Your task to perform on an android device: What's the weather going to be this weekend? Image 0: 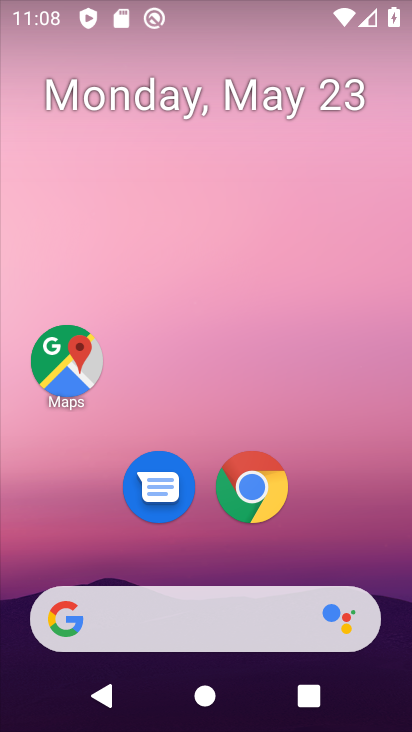
Step 0: drag from (0, 253) to (379, 181)
Your task to perform on an android device: What's the weather going to be this weekend? Image 1: 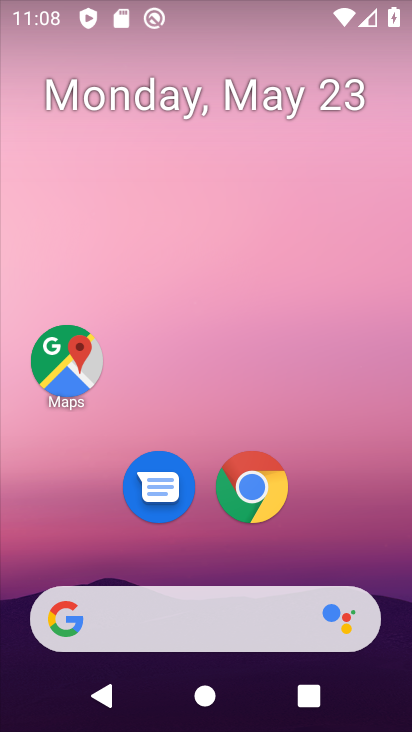
Step 1: drag from (3, 262) to (406, 238)
Your task to perform on an android device: What's the weather going to be this weekend? Image 2: 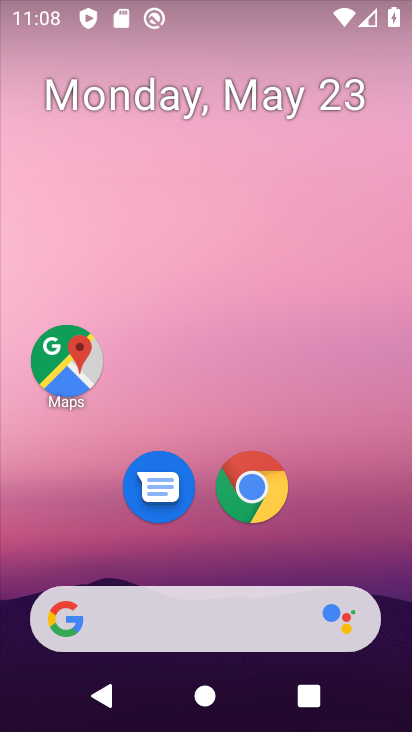
Step 2: drag from (2, 270) to (408, 208)
Your task to perform on an android device: What's the weather going to be this weekend? Image 3: 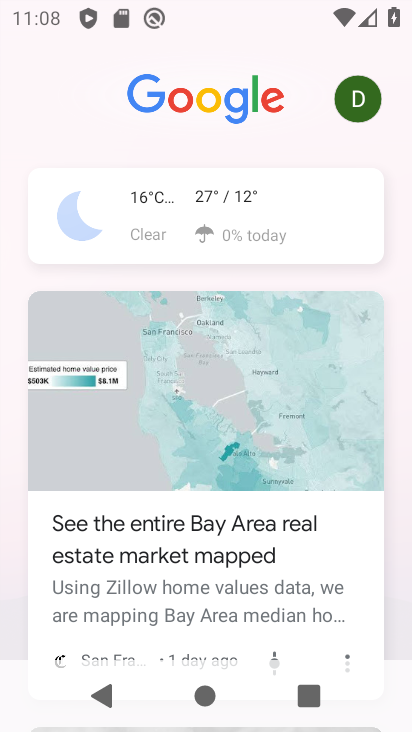
Step 3: click (241, 221)
Your task to perform on an android device: What's the weather going to be this weekend? Image 4: 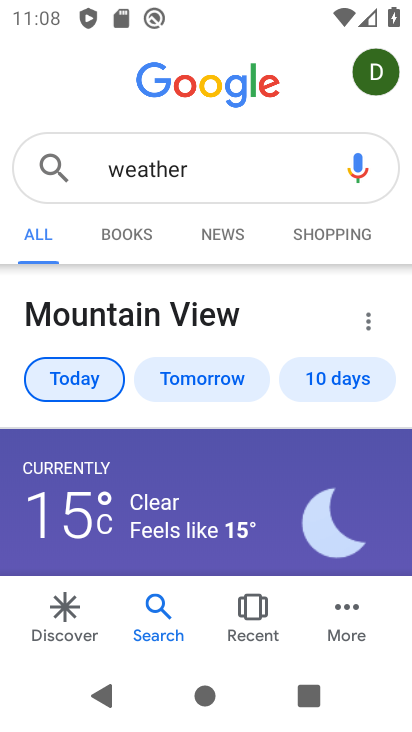
Step 4: drag from (249, 560) to (317, 256)
Your task to perform on an android device: What's the weather going to be this weekend? Image 5: 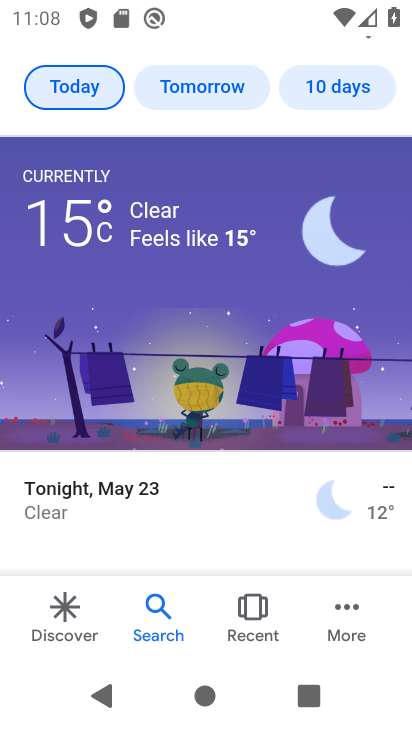
Step 5: click (347, 101)
Your task to perform on an android device: What's the weather going to be this weekend? Image 6: 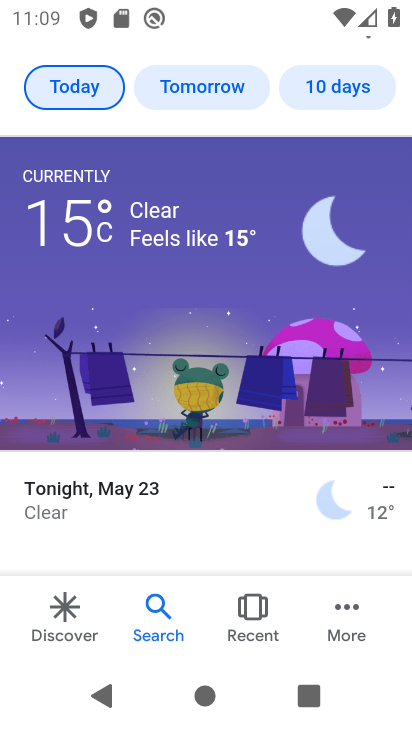
Step 6: click (361, 90)
Your task to perform on an android device: What's the weather going to be this weekend? Image 7: 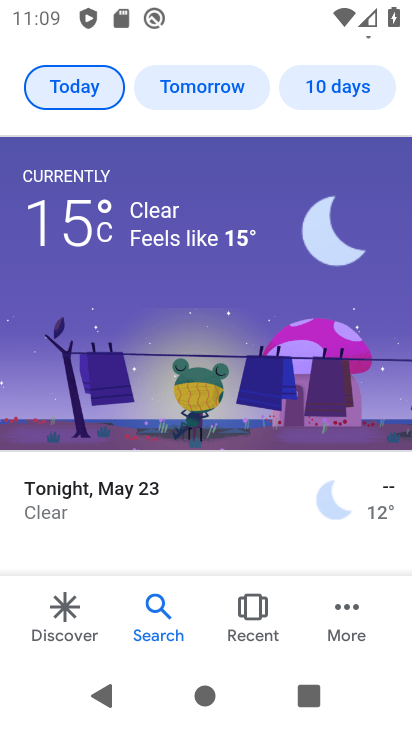
Step 7: click (219, 351)
Your task to perform on an android device: What's the weather going to be this weekend? Image 8: 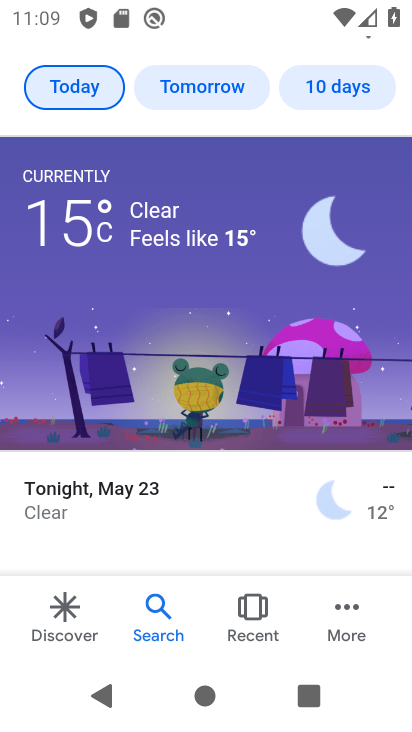
Step 8: drag from (246, 562) to (320, 116)
Your task to perform on an android device: What's the weather going to be this weekend? Image 9: 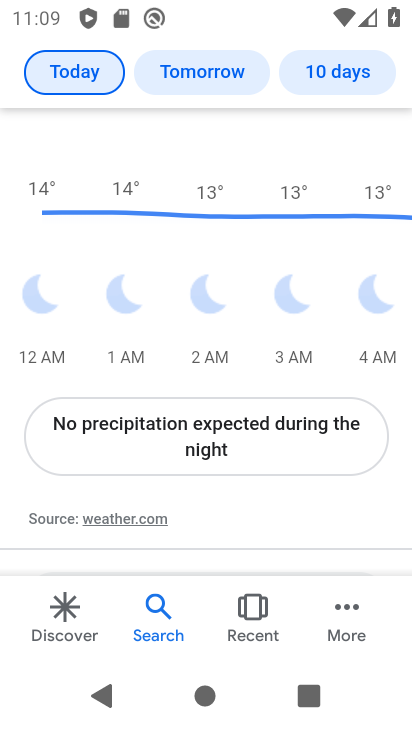
Step 9: drag from (246, 509) to (332, 87)
Your task to perform on an android device: What's the weather going to be this weekend? Image 10: 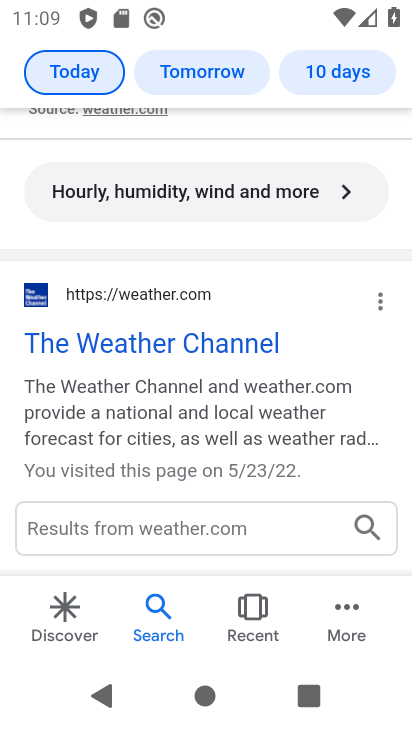
Step 10: click (203, 342)
Your task to perform on an android device: What's the weather going to be this weekend? Image 11: 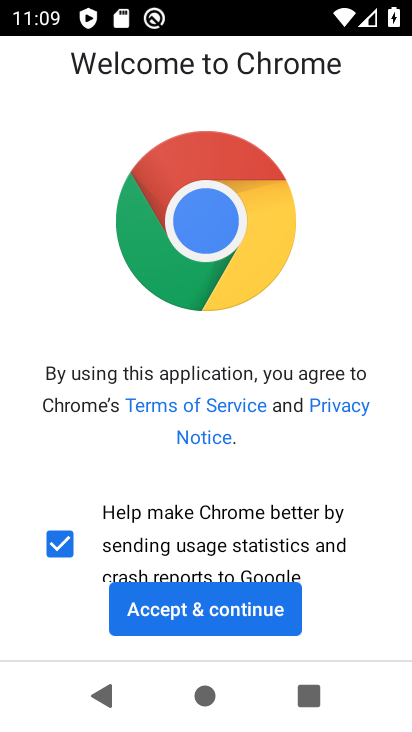
Step 11: click (217, 613)
Your task to perform on an android device: What's the weather going to be this weekend? Image 12: 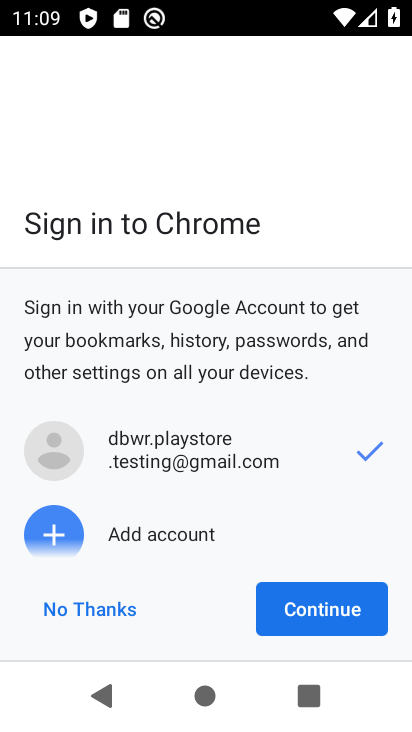
Step 12: click (342, 615)
Your task to perform on an android device: What's the weather going to be this weekend? Image 13: 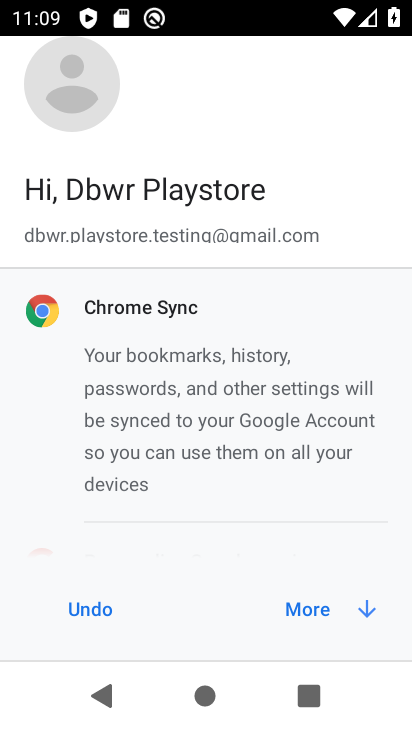
Step 13: click (342, 615)
Your task to perform on an android device: What's the weather going to be this weekend? Image 14: 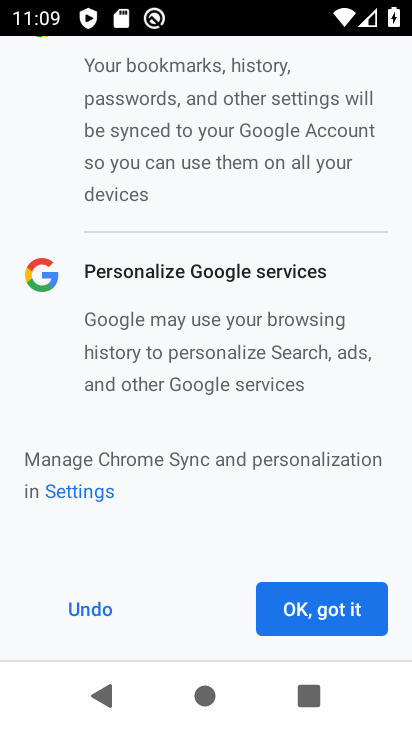
Step 14: click (340, 613)
Your task to perform on an android device: What's the weather going to be this weekend? Image 15: 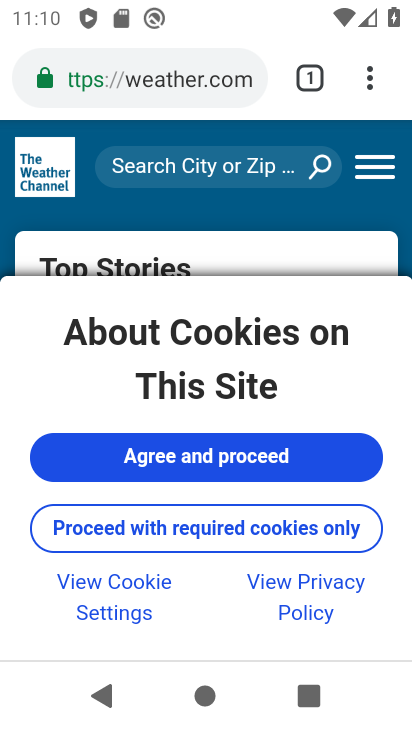
Step 15: click (244, 443)
Your task to perform on an android device: What's the weather going to be this weekend? Image 16: 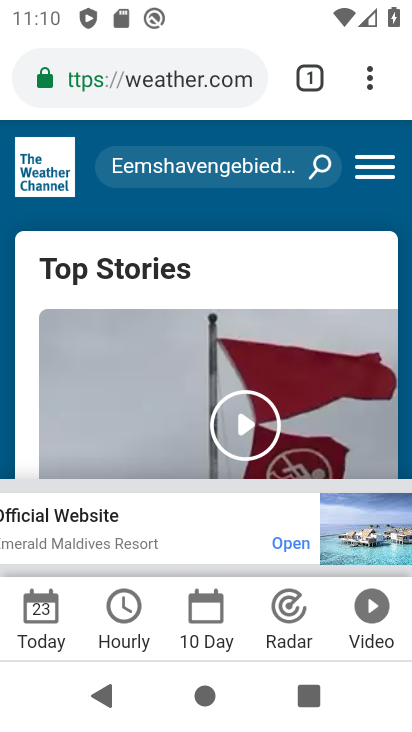
Step 16: click (214, 594)
Your task to perform on an android device: What's the weather going to be this weekend? Image 17: 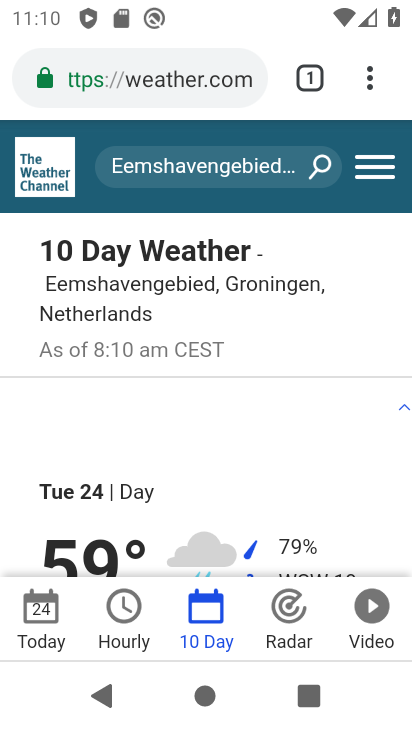
Step 17: drag from (143, 545) to (274, 165)
Your task to perform on an android device: What's the weather going to be this weekend? Image 18: 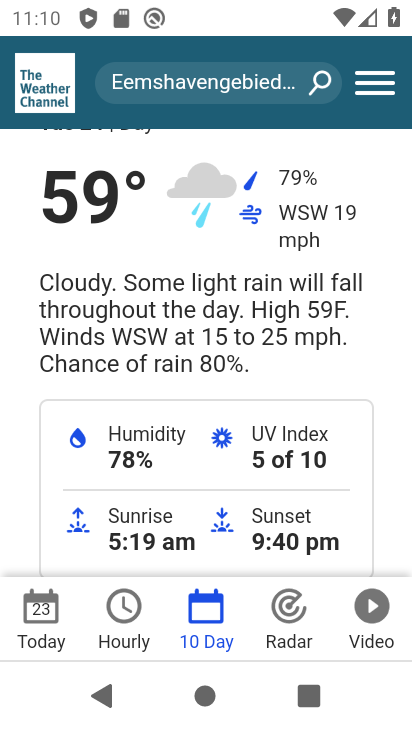
Step 18: drag from (217, 484) to (331, 145)
Your task to perform on an android device: What's the weather going to be this weekend? Image 19: 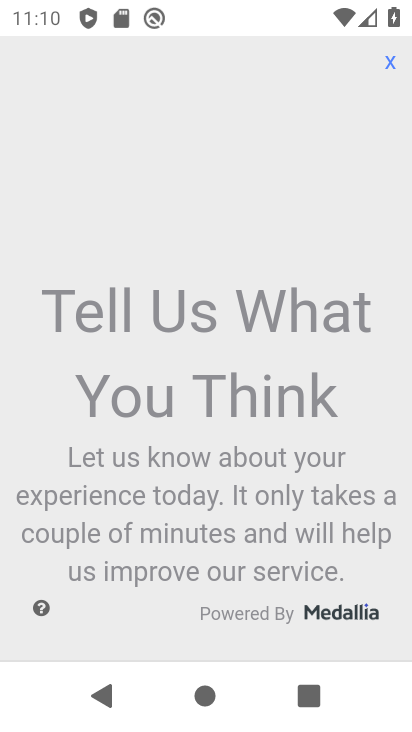
Step 19: drag from (241, 600) to (304, 180)
Your task to perform on an android device: What's the weather going to be this weekend? Image 20: 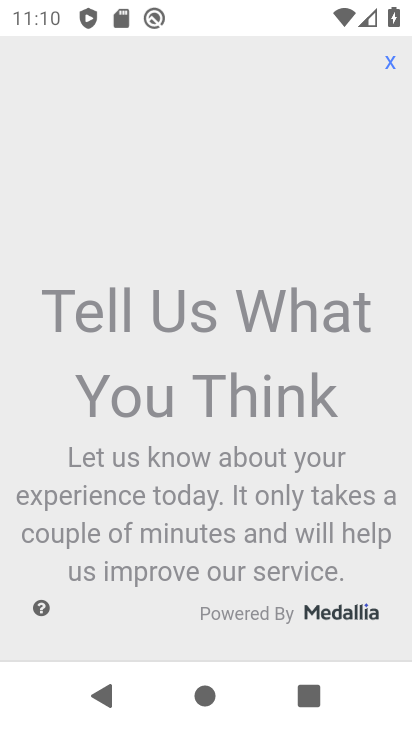
Step 20: click (391, 54)
Your task to perform on an android device: What's the weather going to be this weekend? Image 21: 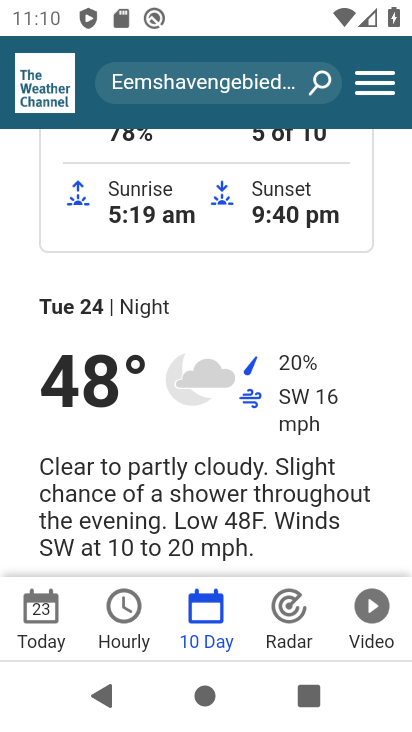
Step 21: task complete